Your task to perform on an android device: open a bookmark in the chrome app Image 0: 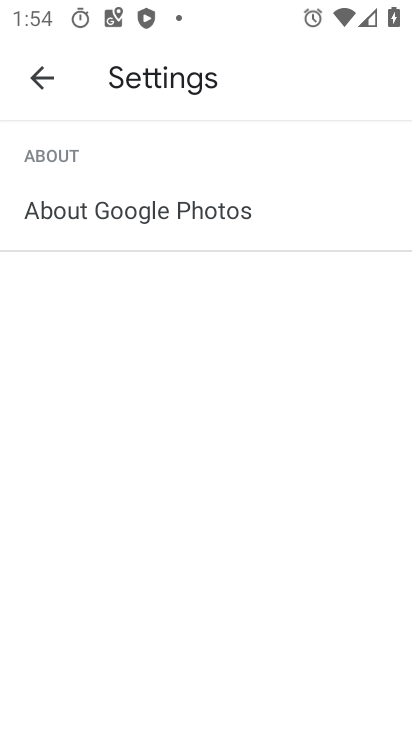
Step 0: press back button
Your task to perform on an android device: open a bookmark in the chrome app Image 1: 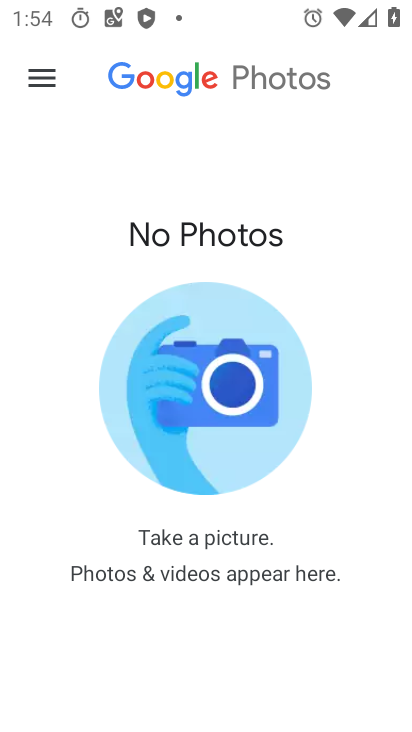
Step 1: press back button
Your task to perform on an android device: open a bookmark in the chrome app Image 2: 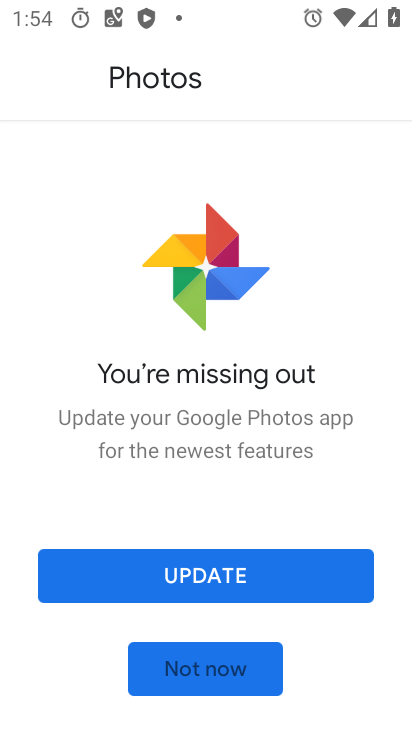
Step 2: press back button
Your task to perform on an android device: open a bookmark in the chrome app Image 3: 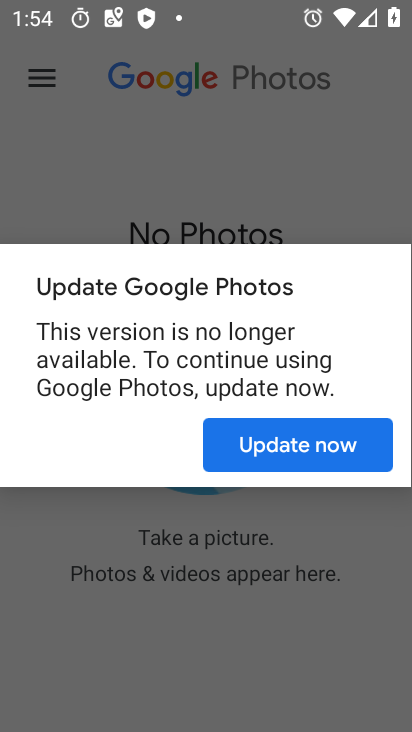
Step 3: press home button
Your task to perform on an android device: open a bookmark in the chrome app Image 4: 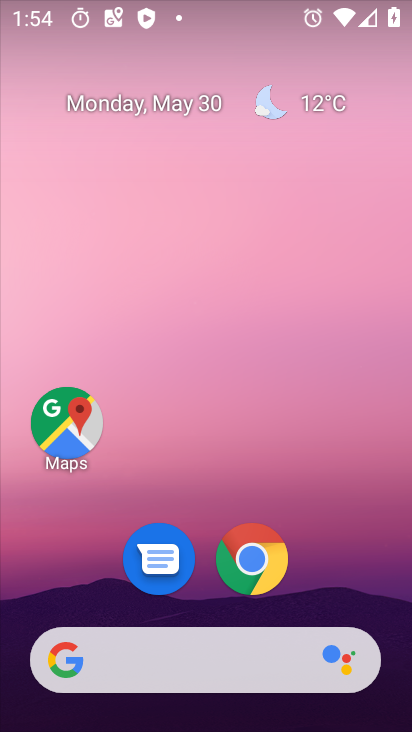
Step 4: click (239, 576)
Your task to perform on an android device: open a bookmark in the chrome app Image 5: 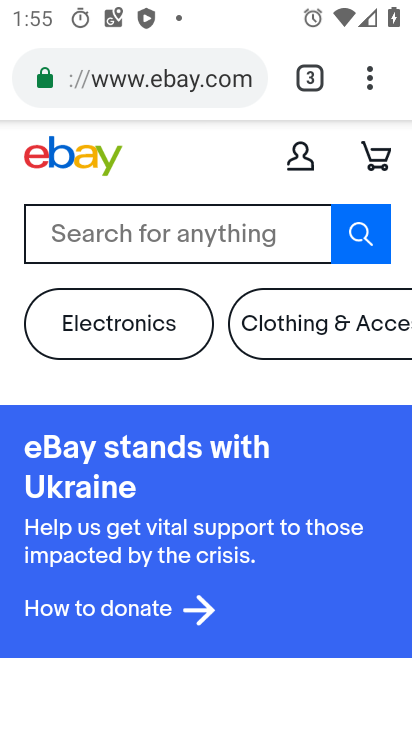
Step 5: drag from (368, 72) to (94, 285)
Your task to perform on an android device: open a bookmark in the chrome app Image 6: 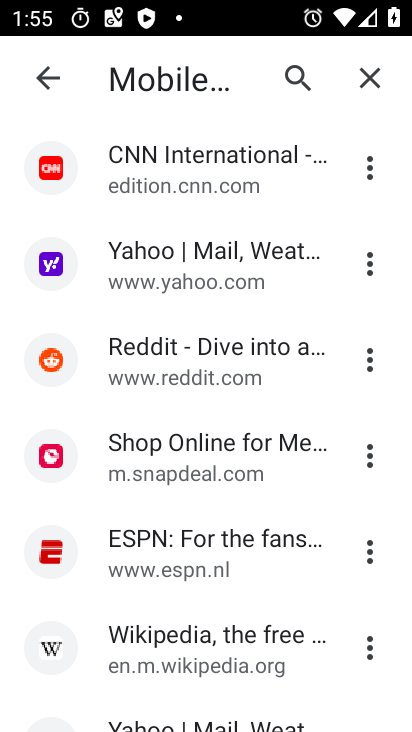
Step 6: click (140, 252)
Your task to perform on an android device: open a bookmark in the chrome app Image 7: 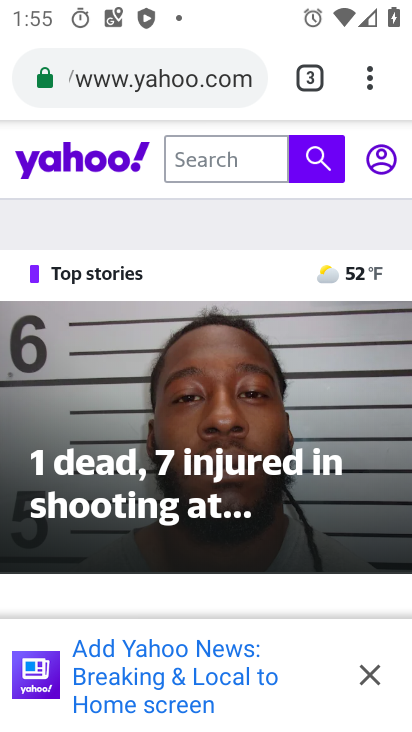
Step 7: task complete